Your task to perform on an android device: toggle airplane mode Image 0: 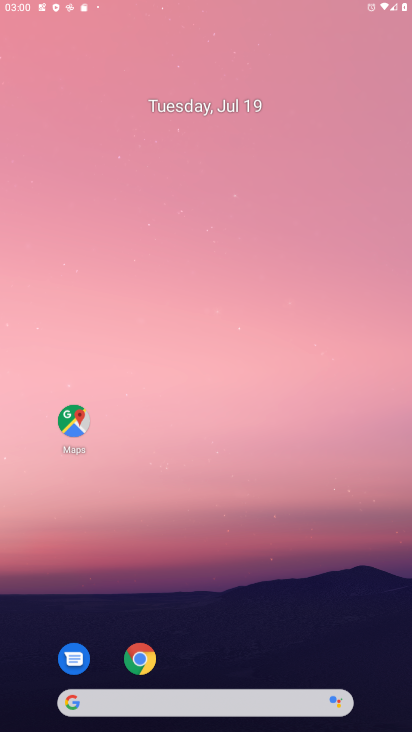
Step 0: press home button
Your task to perform on an android device: toggle airplane mode Image 1: 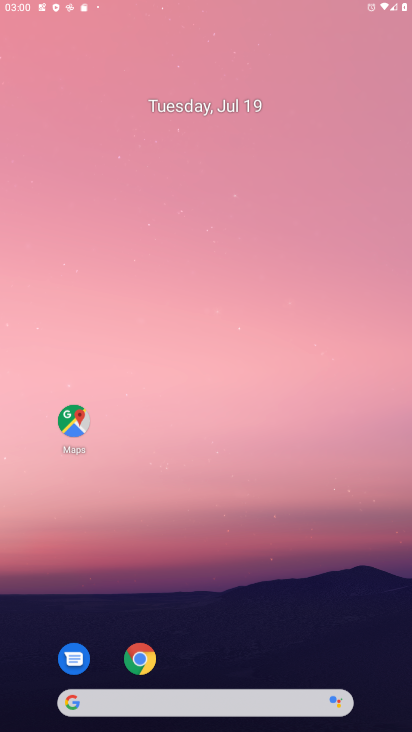
Step 1: click (286, 200)
Your task to perform on an android device: toggle airplane mode Image 2: 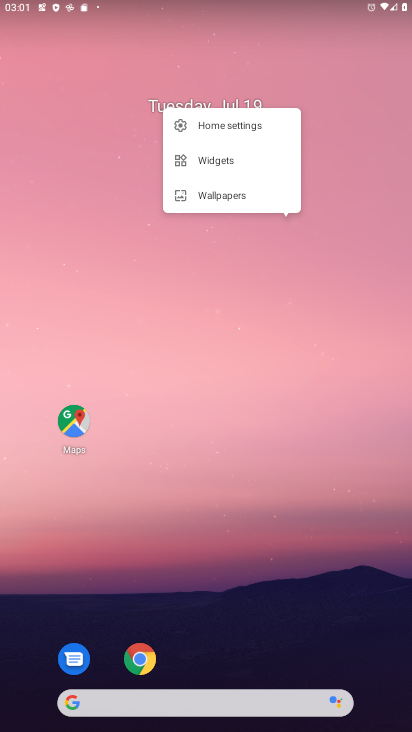
Step 2: click (290, 295)
Your task to perform on an android device: toggle airplane mode Image 3: 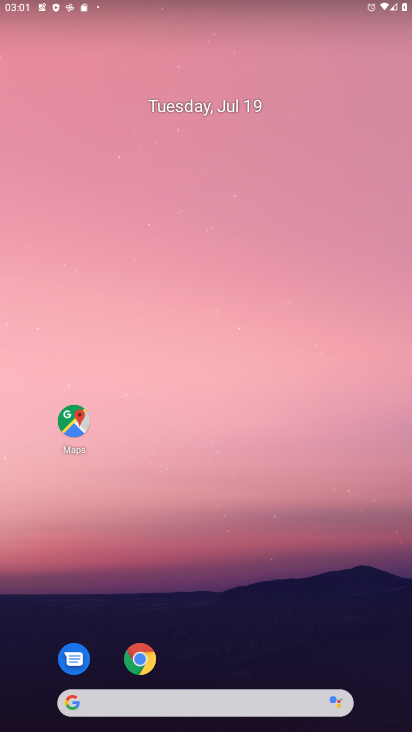
Step 3: drag from (305, 607) to (266, 0)
Your task to perform on an android device: toggle airplane mode Image 4: 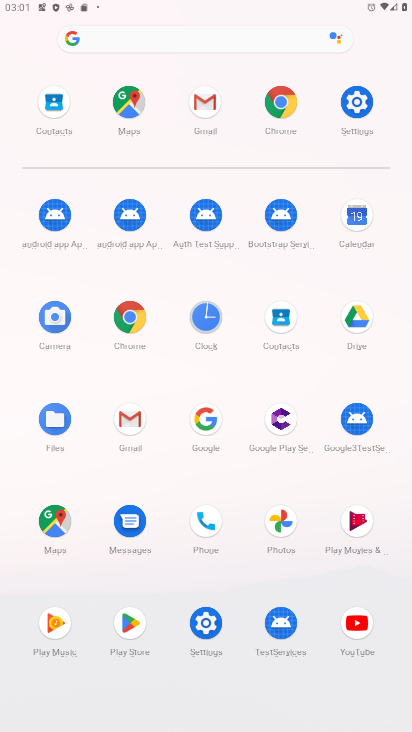
Step 4: drag from (262, 41) to (187, 634)
Your task to perform on an android device: toggle airplane mode Image 5: 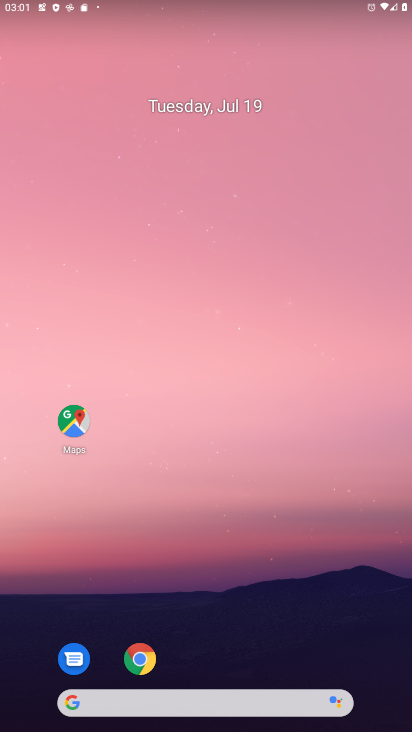
Step 5: drag from (267, 5) to (235, 711)
Your task to perform on an android device: toggle airplane mode Image 6: 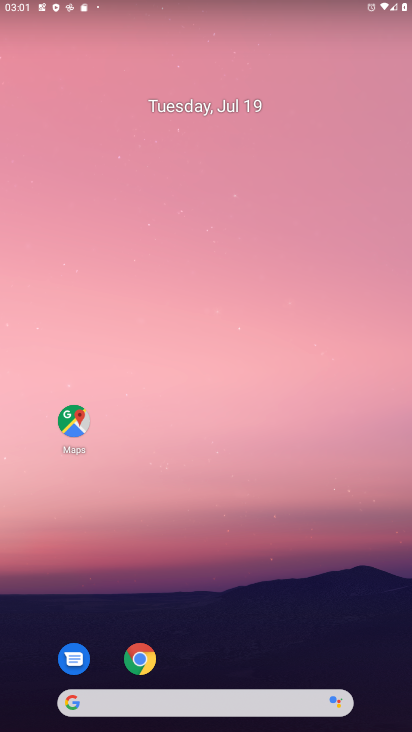
Step 6: drag from (363, 2) to (305, 507)
Your task to perform on an android device: toggle airplane mode Image 7: 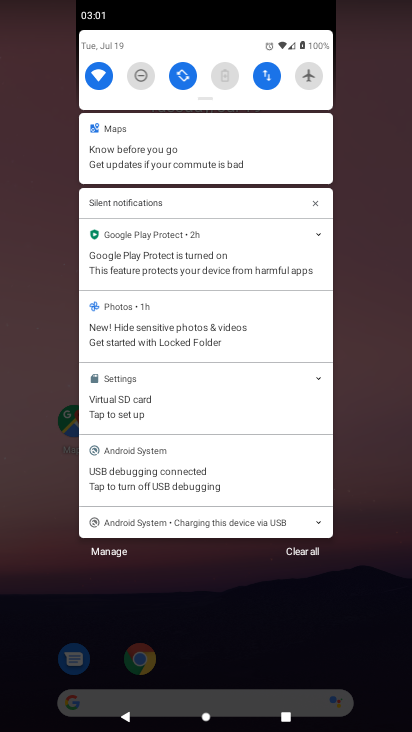
Step 7: click (314, 67)
Your task to perform on an android device: toggle airplane mode Image 8: 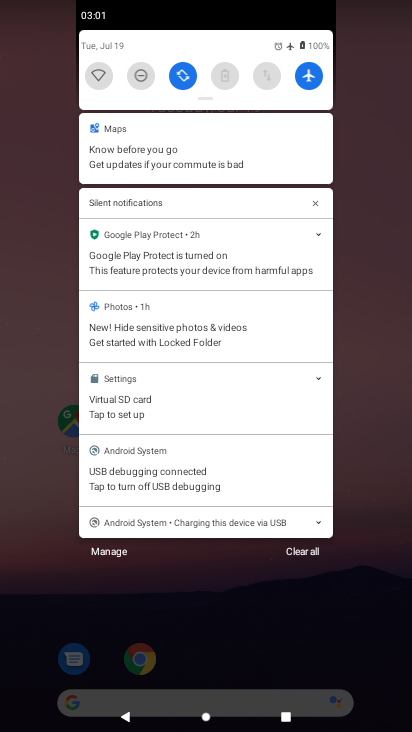
Step 8: task complete